Your task to perform on an android device: turn on wifi Image 0: 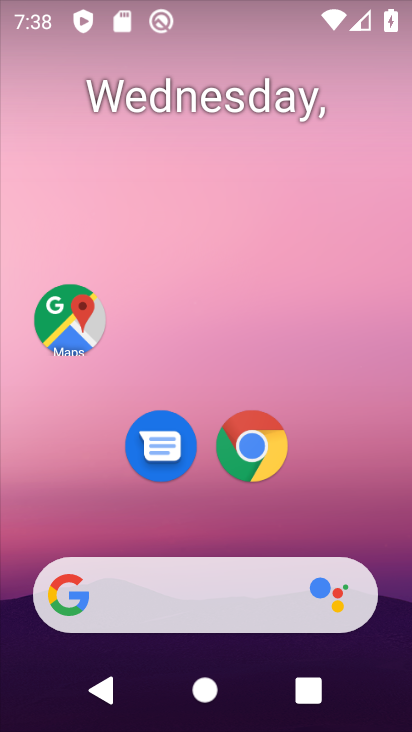
Step 0: drag from (387, 628) to (323, 34)
Your task to perform on an android device: turn on wifi Image 1: 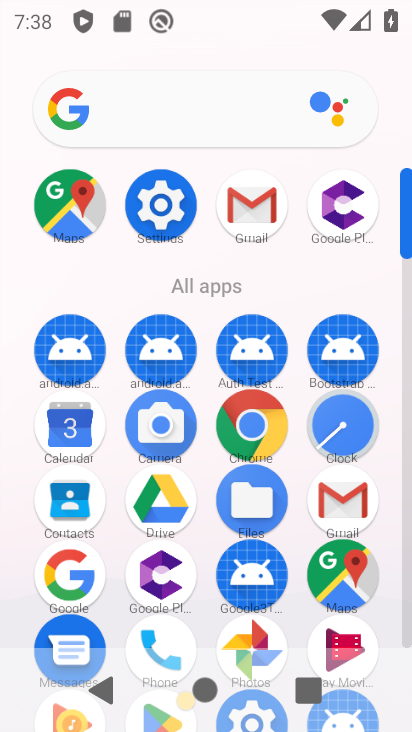
Step 1: click (180, 206)
Your task to perform on an android device: turn on wifi Image 2: 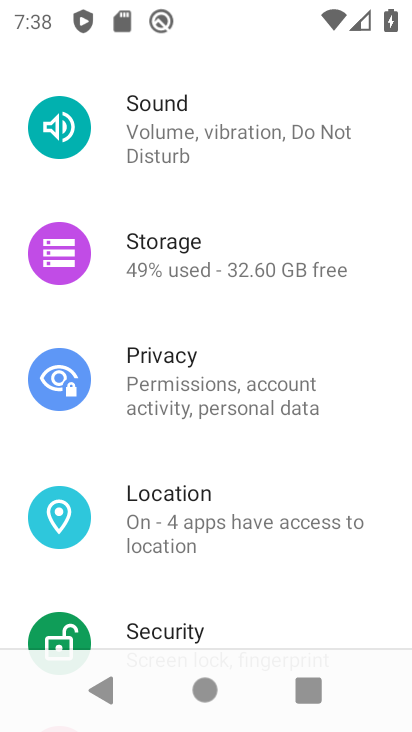
Step 2: drag from (253, 141) to (285, 662)
Your task to perform on an android device: turn on wifi Image 3: 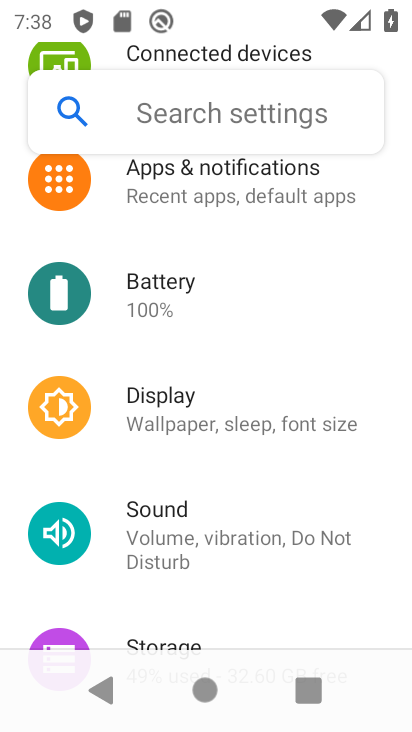
Step 3: drag from (273, 254) to (287, 672)
Your task to perform on an android device: turn on wifi Image 4: 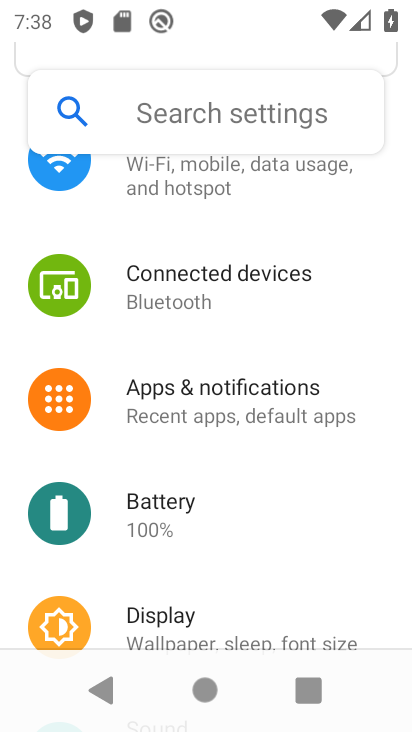
Step 4: drag from (279, 213) to (306, 539)
Your task to perform on an android device: turn on wifi Image 5: 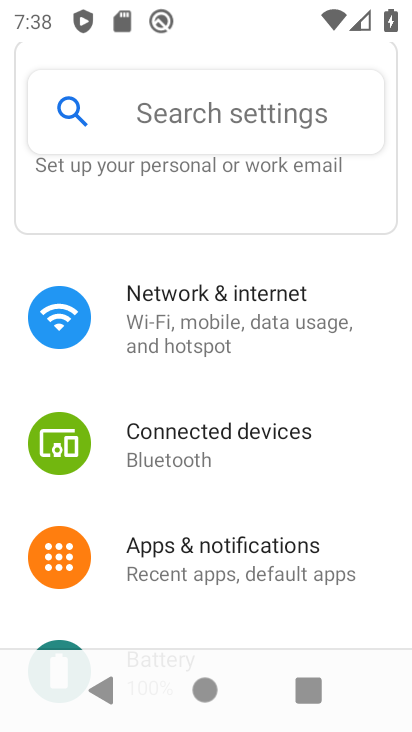
Step 5: click (158, 295)
Your task to perform on an android device: turn on wifi Image 6: 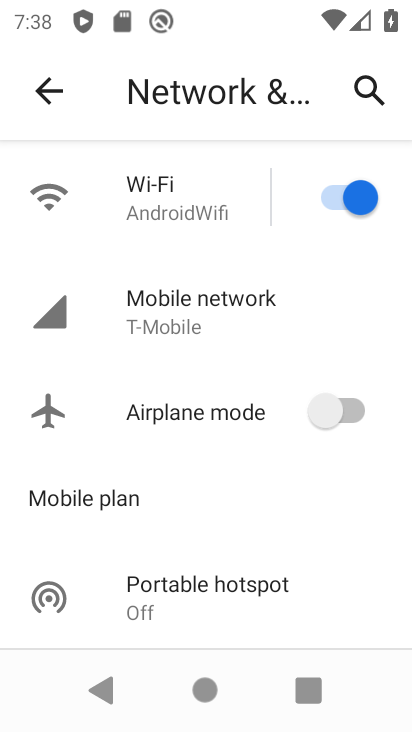
Step 6: task complete